Your task to perform on an android device: change notifications settings Image 0: 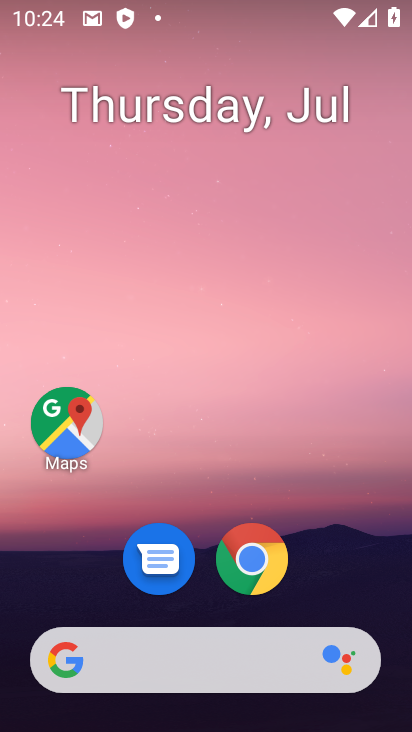
Step 0: drag from (77, 587) to (296, 9)
Your task to perform on an android device: change notifications settings Image 1: 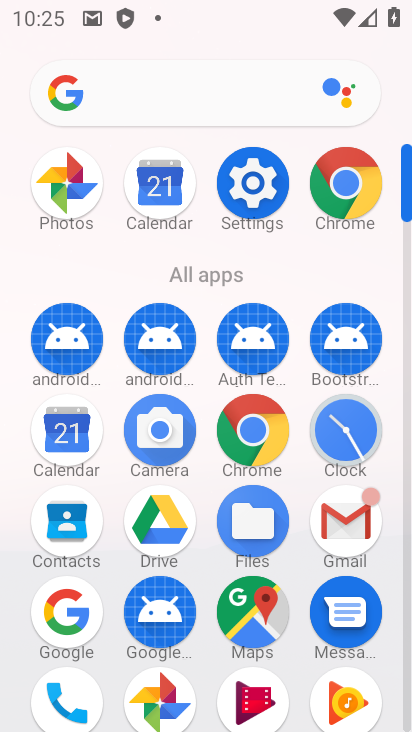
Step 1: click (272, 179)
Your task to perform on an android device: change notifications settings Image 2: 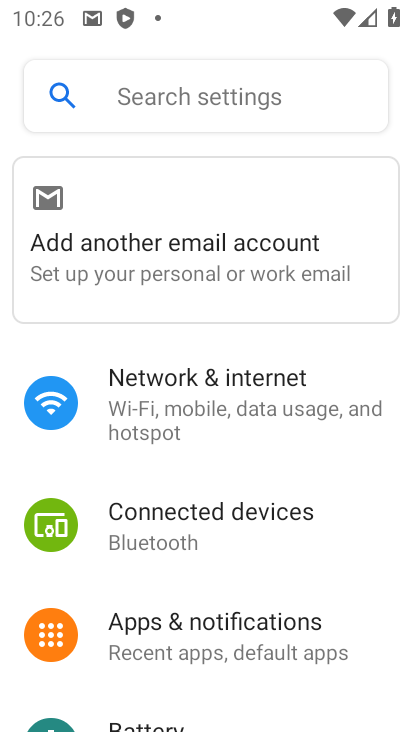
Step 2: click (199, 641)
Your task to perform on an android device: change notifications settings Image 3: 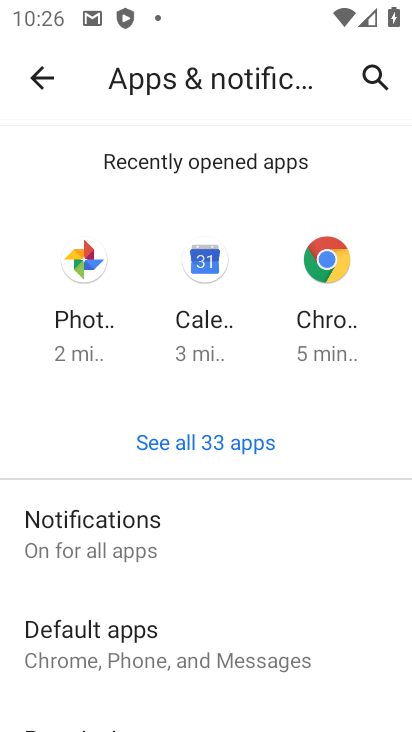
Step 3: click (173, 528)
Your task to perform on an android device: change notifications settings Image 4: 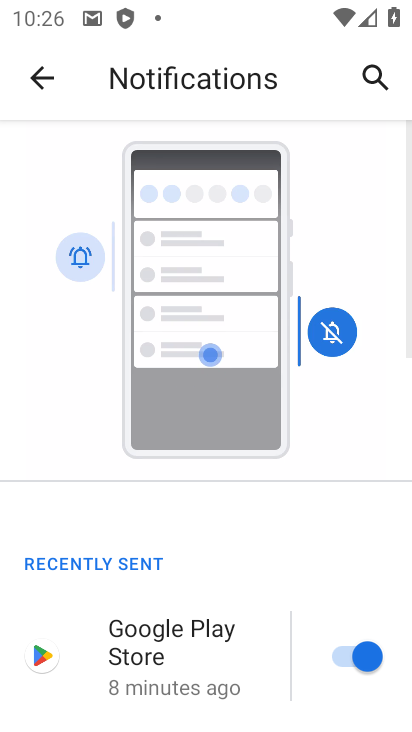
Step 4: task complete